Your task to perform on an android device: open the mobile data screen to see how much data has been used Image 0: 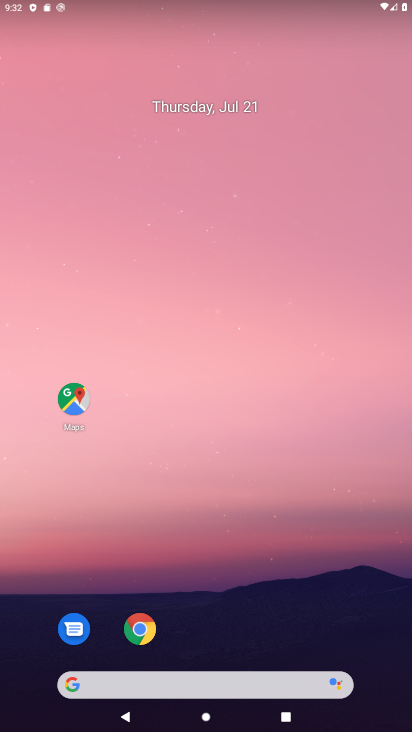
Step 0: drag from (195, 9) to (168, 379)
Your task to perform on an android device: open the mobile data screen to see how much data has been used Image 1: 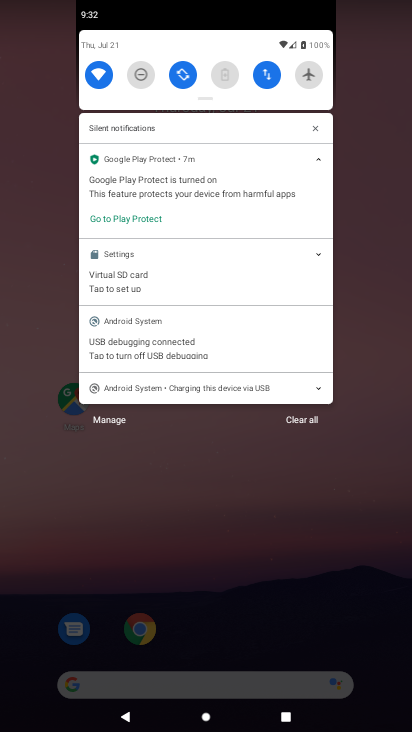
Step 1: click (278, 73)
Your task to perform on an android device: open the mobile data screen to see how much data has been used Image 2: 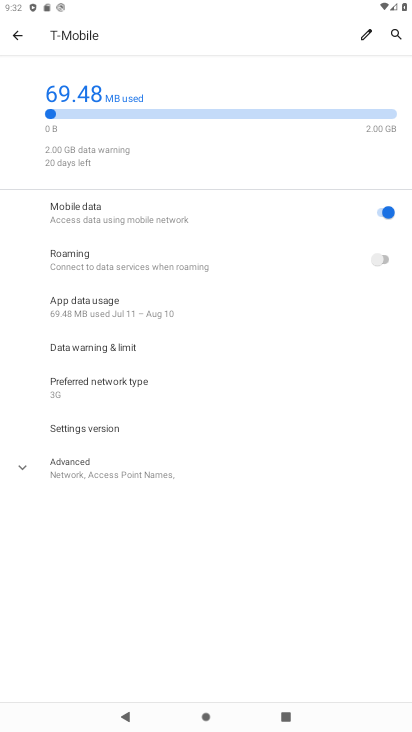
Step 2: task complete